Your task to perform on an android device: toggle airplane mode Image 0: 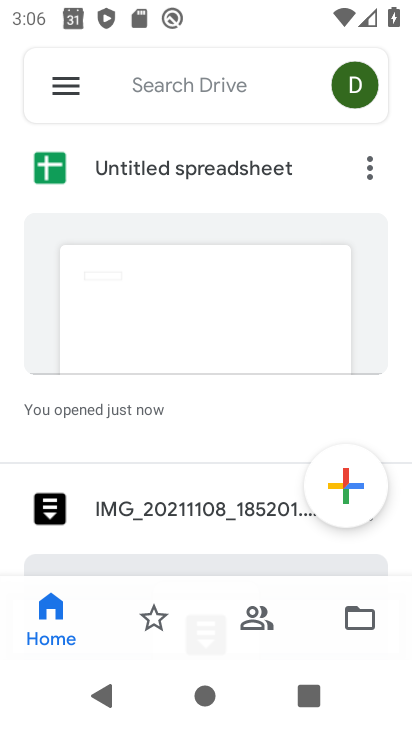
Step 0: press home button
Your task to perform on an android device: toggle airplane mode Image 1: 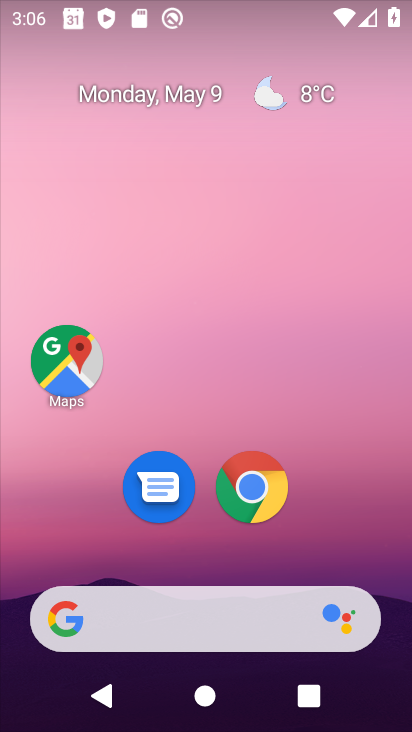
Step 1: drag from (218, 11) to (237, 668)
Your task to perform on an android device: toggle airplane mode Image 2: 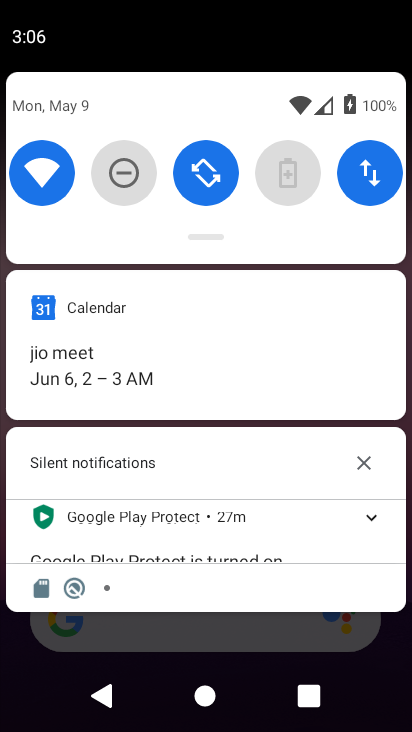
Step 2: drag from (240, 230) to (215, 668)
Your task to perform on an android device: toggle airplane mode Image 3: 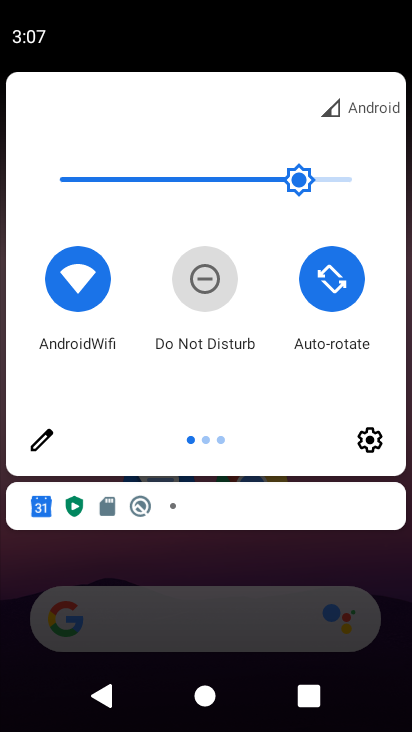
Step 3: drag from (367, 297) to (0, 295)
Your task to perform on an android device: toggle airplane mode Image 4: 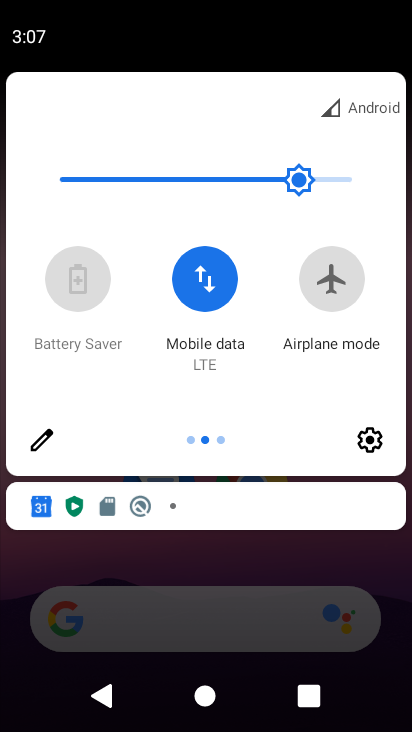
Step 4: click (330, 278)
Your task to perform on an android device: toggle airplane mode Image 5: 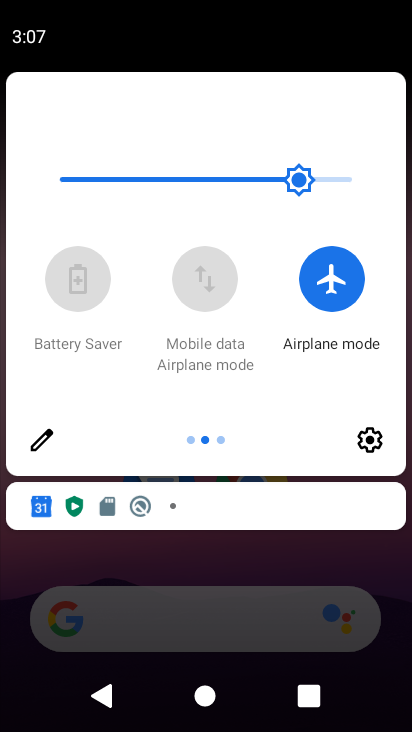
Step 5: task complete